Your task to perform on an android device: Open Google Maps Image 0: 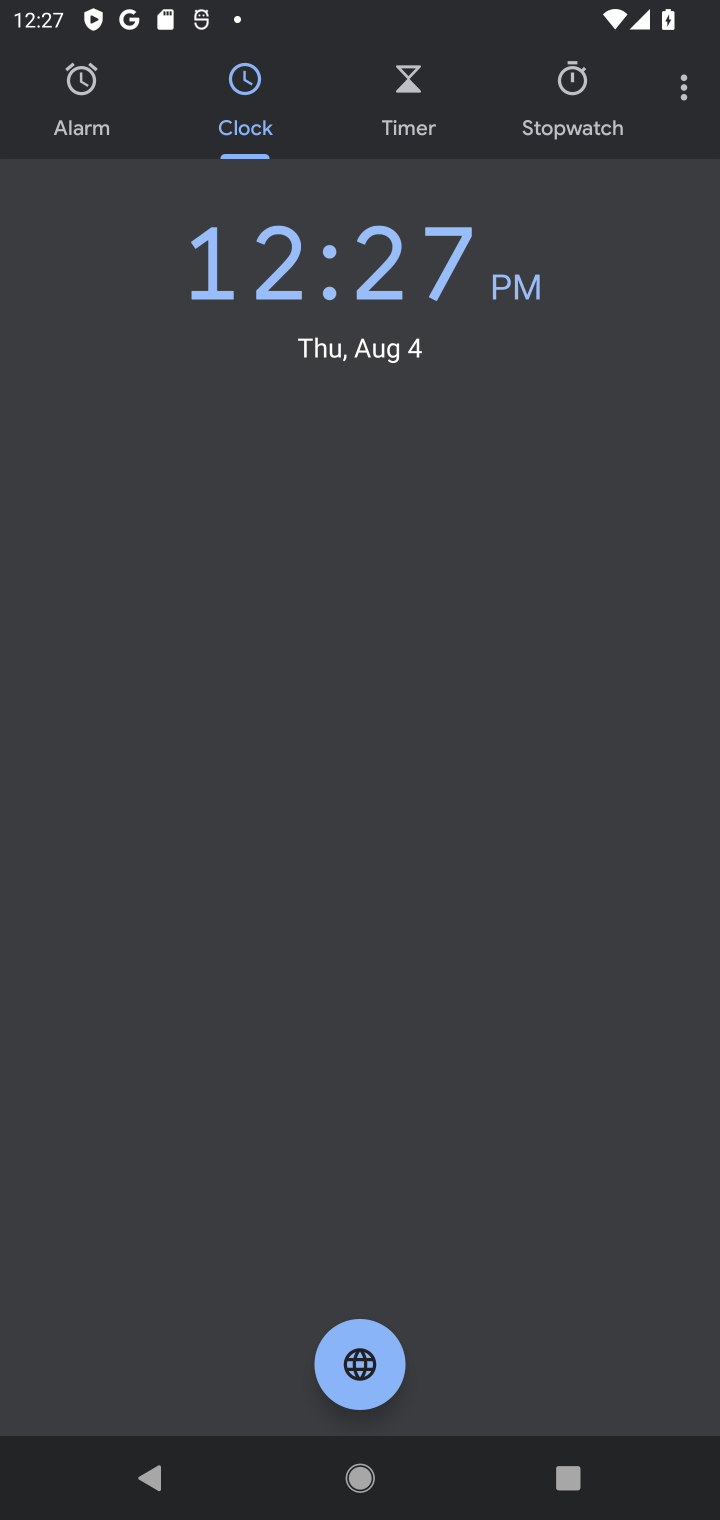
Step 0: press home button
Your task to perform on an android device: Open Google Maps Image 1: 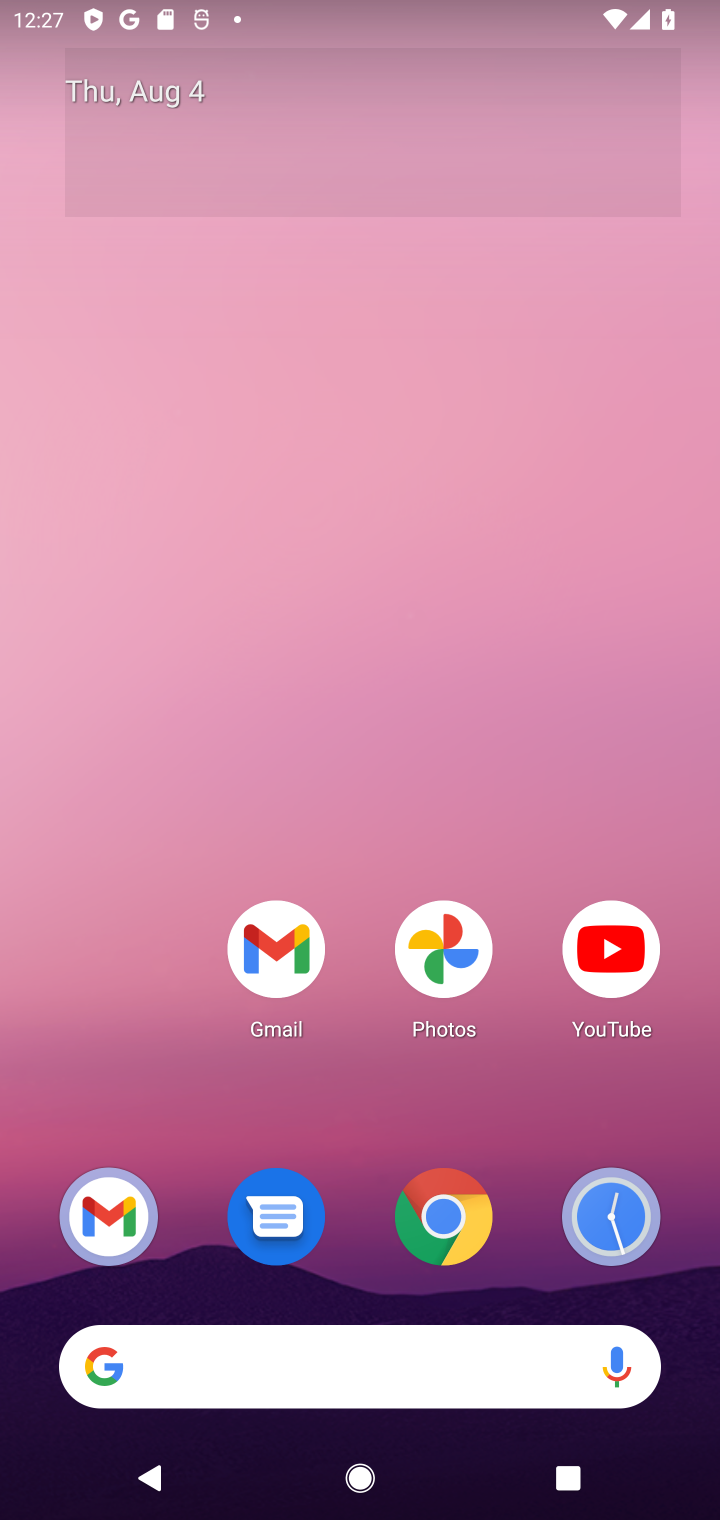
Step 1: drag from (103, 521) to (53, 143)
Your task to perform on an android device: Open Google Maps Image 2: 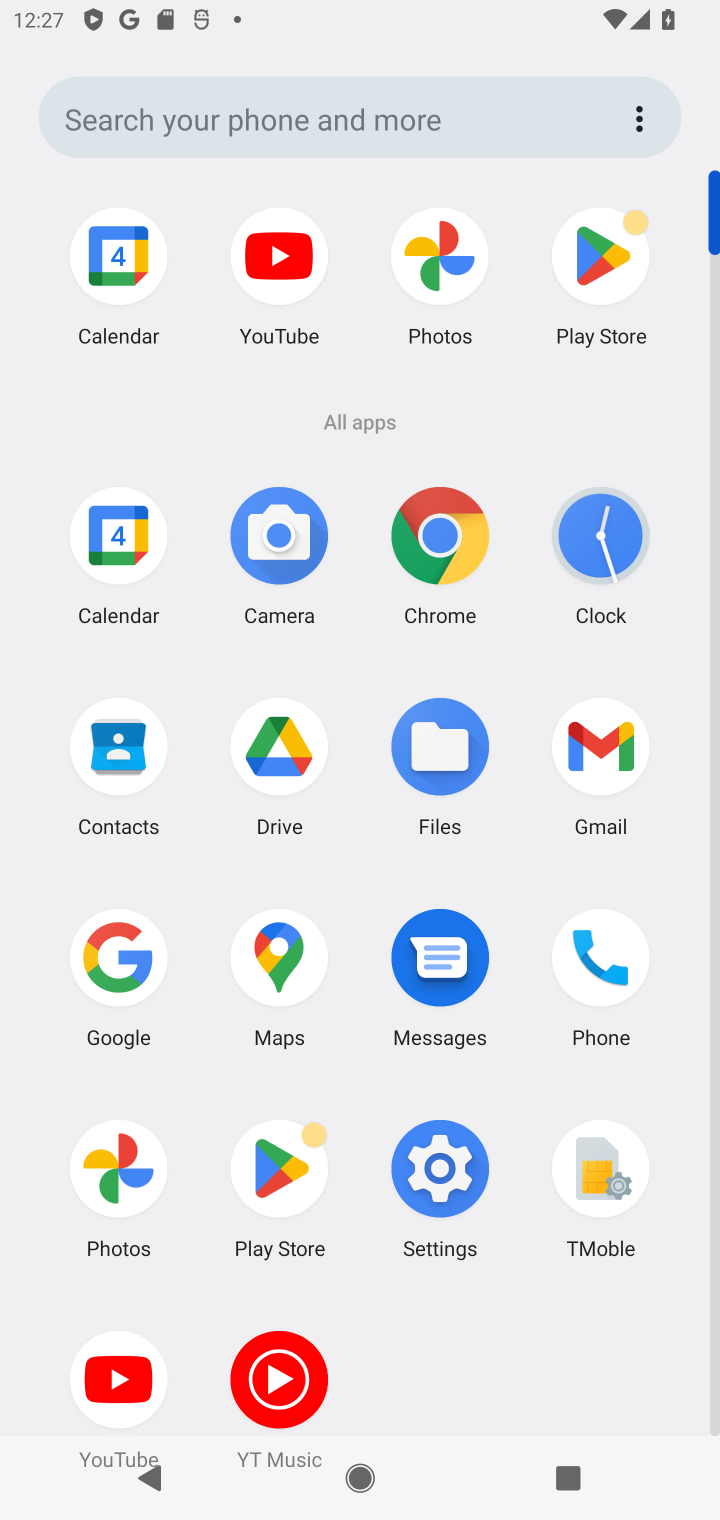
Step 2: click (267, 966)
Your task to perform on an android device: Open Google Maps Image 3: 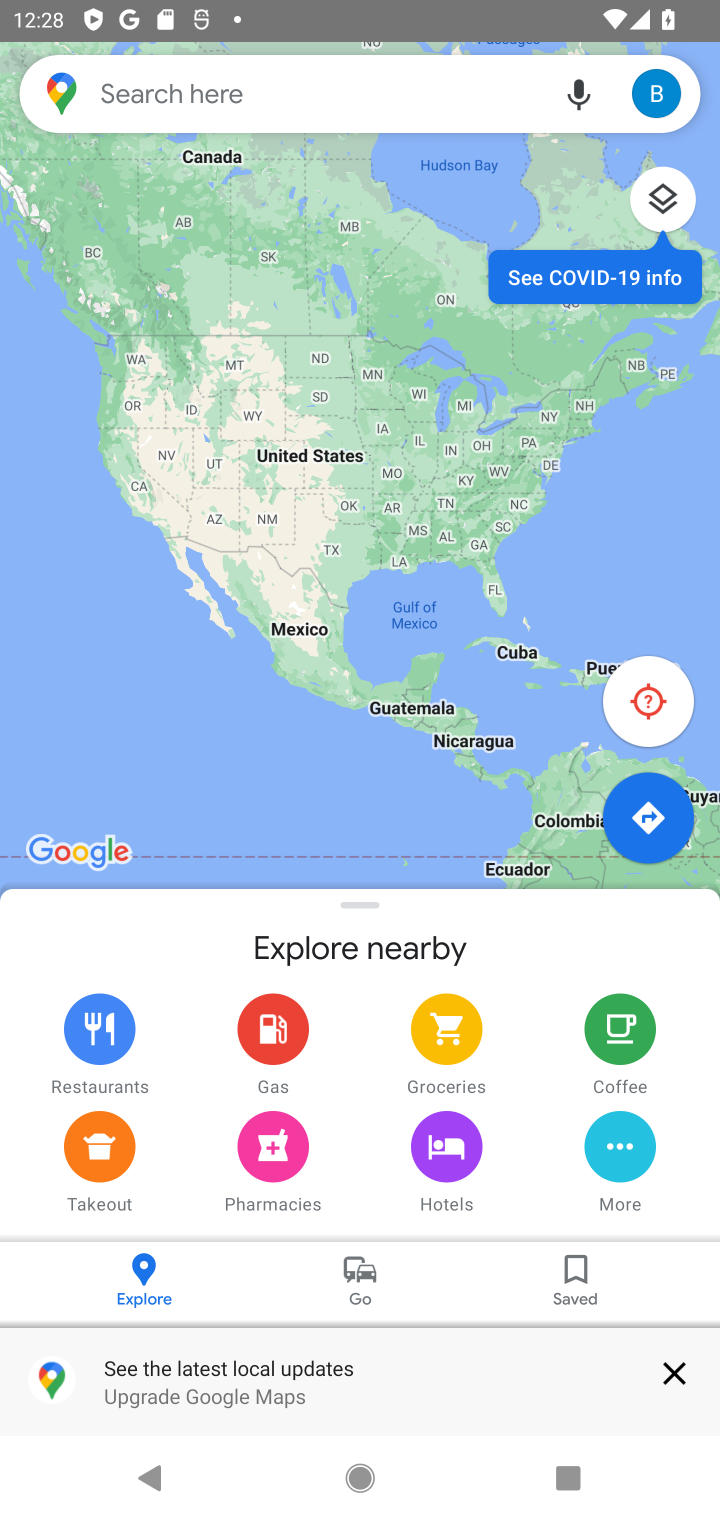
Step 3: task complete